Your task to perform on an android device: Show me productivity apps on the Play Store Image 0: 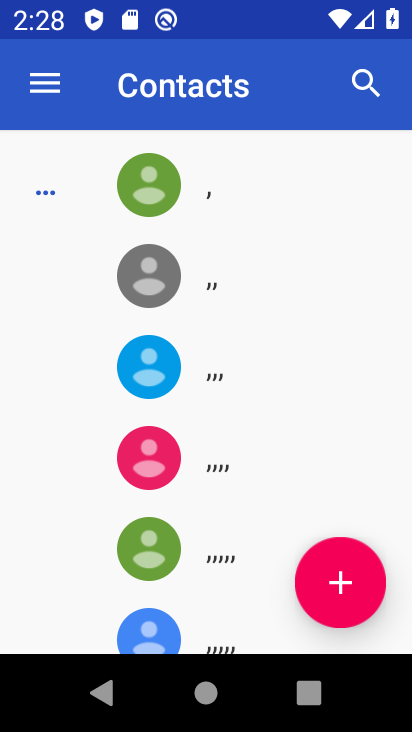
Step 0: press home button
Your task to perform on an android device: Show me productivity apps on the Play Store Image 1: 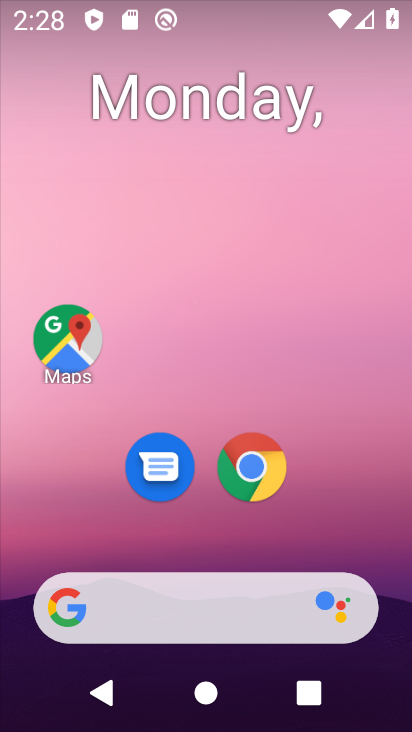
Step 1: drag from (376, 559) to (311, 226)
Your task to perform on an android device: Show me productivity apps on the Play Store Image 2: 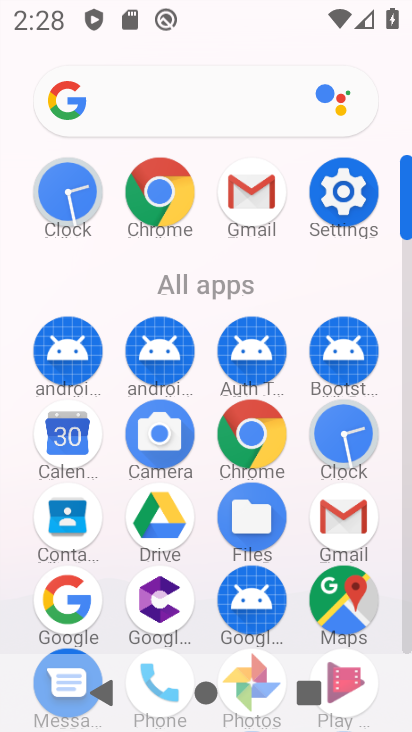
Step 2: click (407, 639)
Your task to perform on an android device: Show me productivity apps on the Play Store Image 3: 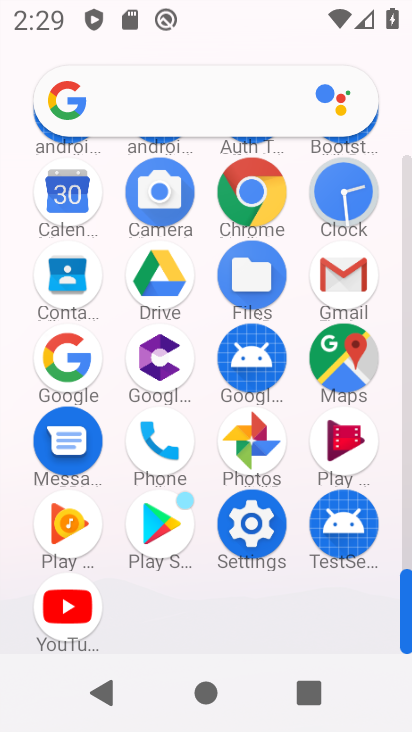
Step 3: click (169, 534)
Your task to perform on an android device: Show me productivity apps on the Play Store Image 4: 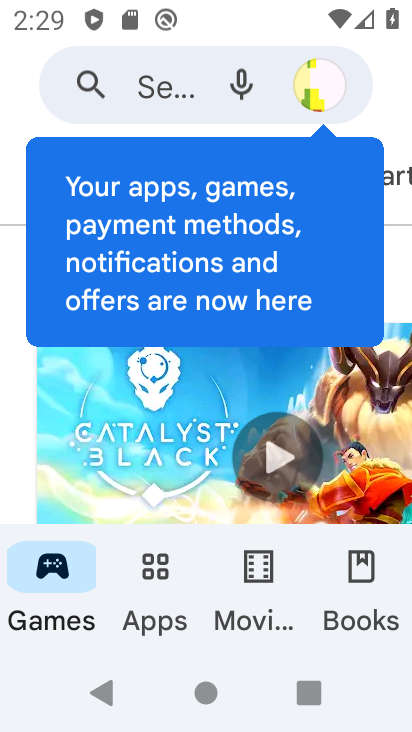
Step 4: click (146, 611)
Your task to perform on an android device: Show me productivity apps on the Play Store Image 5: 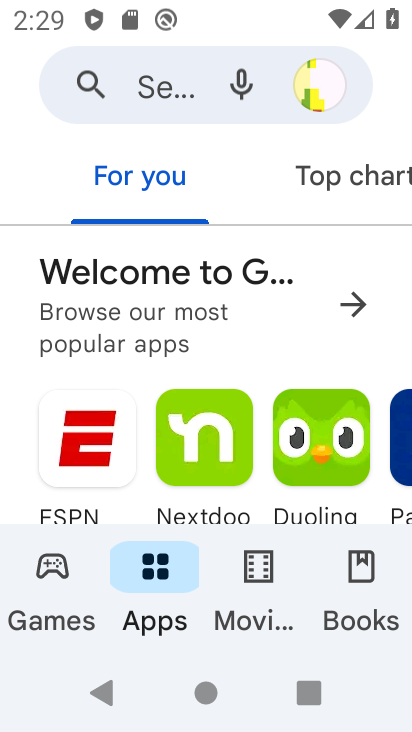
Step 5: drag from (367, 190) to (84, 176)
Your task to perform on an android device: Show me productivity apps on the Play Store Image 6: 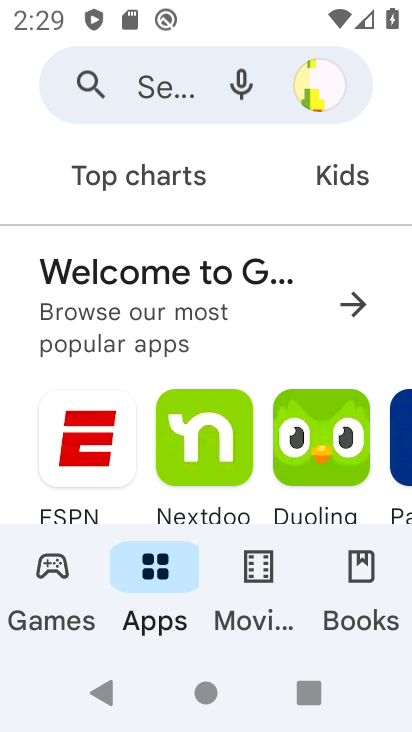
Step 6: drag from (332, 176) to (64, 176)
Your task to perform on an android device: Show me productivity apps on the Play Store Image 7: 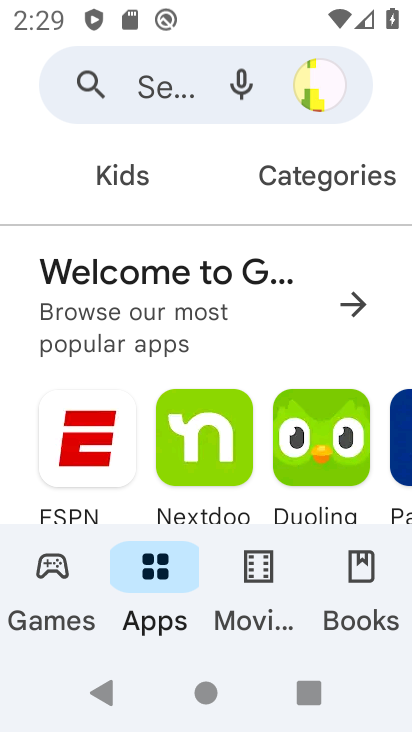
Step 7: click (355, 195)
Your task to perform on an android device: Show me productivity apps on the Play Store Image 8: 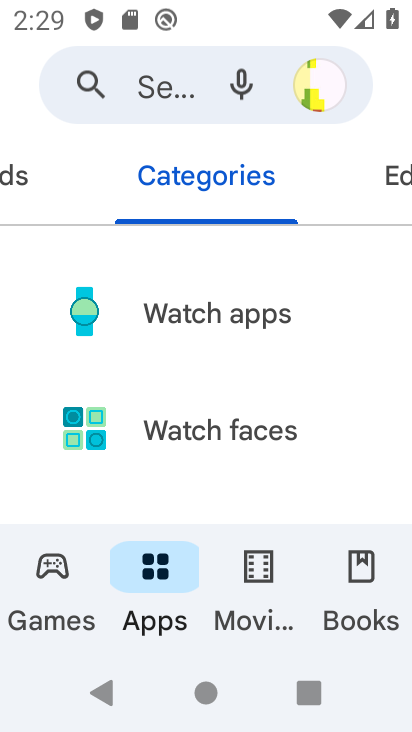
Step 8: drag from (226, 501) to (205, 265)
Your task to perform on an android device: Show me productivity apps on the Play Store Image 9: 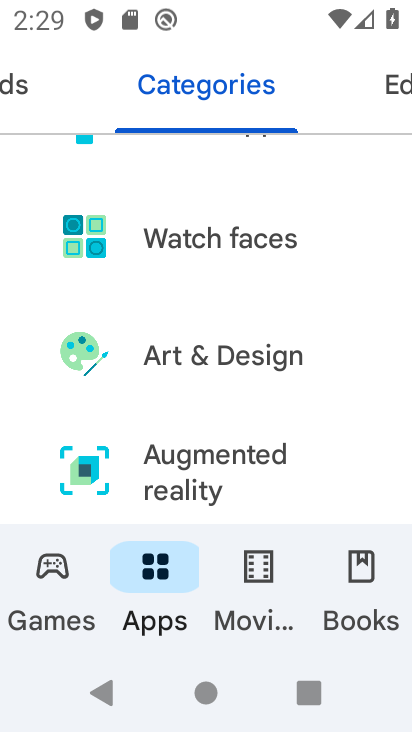
Step 9: drag from (244, 483) to (216, 174)
Your task to perform on an android device: Show me productivity apps on the Play Store Image 10: 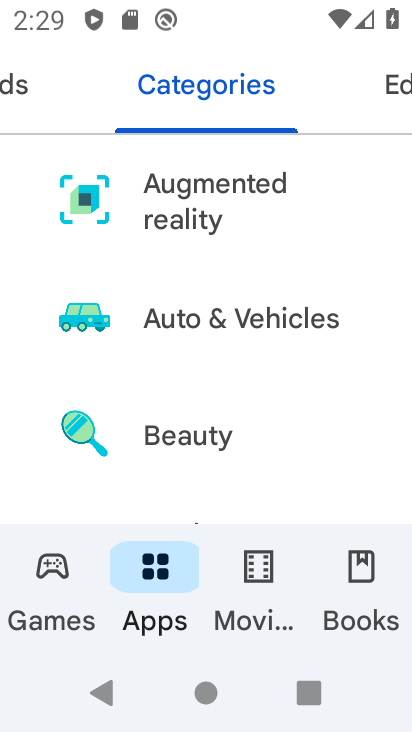
Step 10: drag from (266, 462) to (206, 68)
Your task to perform on an android device: Show me productivity apps on the Play Store Image 11: 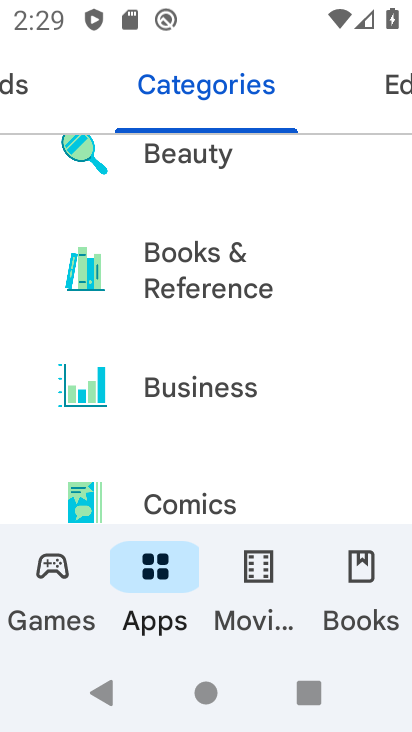
Step 11: drag from (226, 432) to (199, 167)
Your task to perform on an android device: Show me productivity apps on the Play Store Image 12: 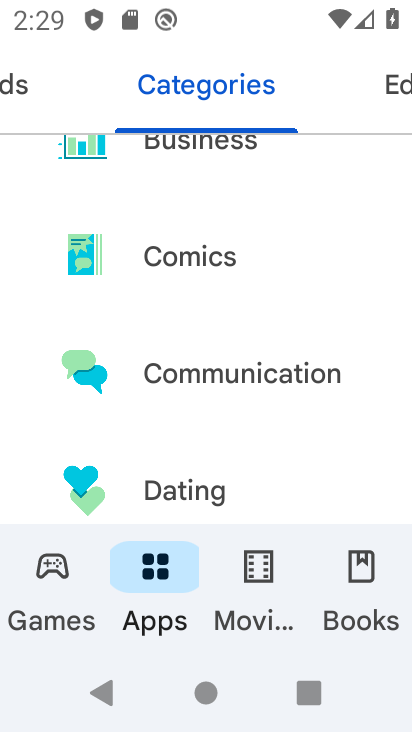
Step 12: drag from (298, 469) to (273, 157)
Your task to perform on an android device: Show me productivity apps on the Play Store Image 13: 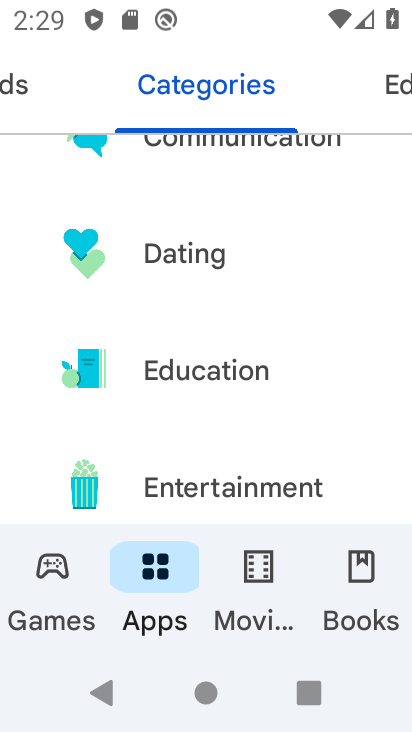
Step 13: drag from (281, 426) to (245, 93)
Your task to perform on an android device: Show me productivity apps on the Play Store Image 14: 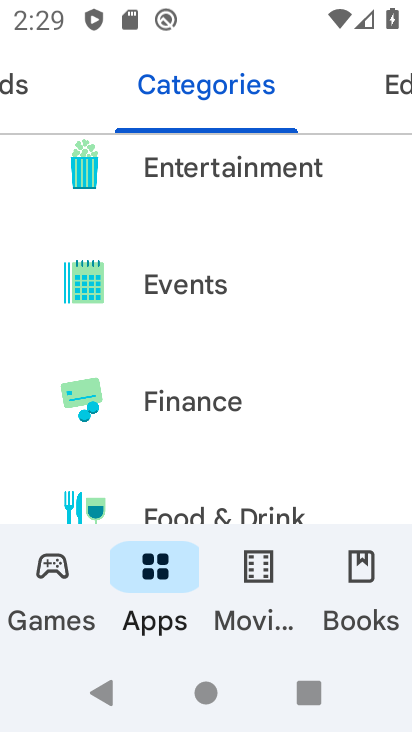
Step 14: drag from (242, 489) to (214, 42)
Your task to perform on an android device: Show me productivity apps on the Play Store Image 15: 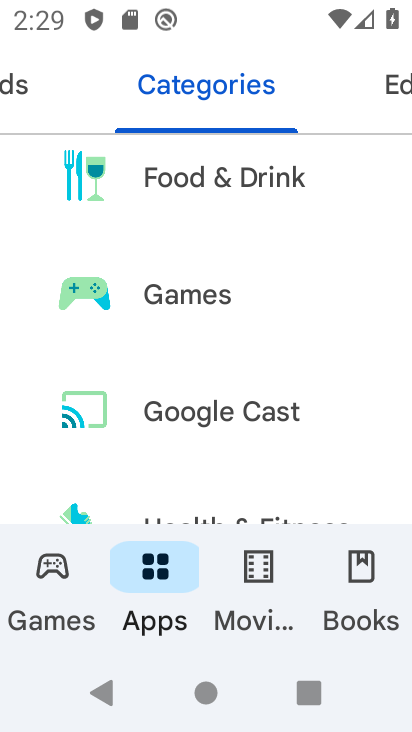
Step 15: drag from (259, 495) to (213, 84)
Your task to perform on an android device: Show me productivity apps on the Play Store Image 16: 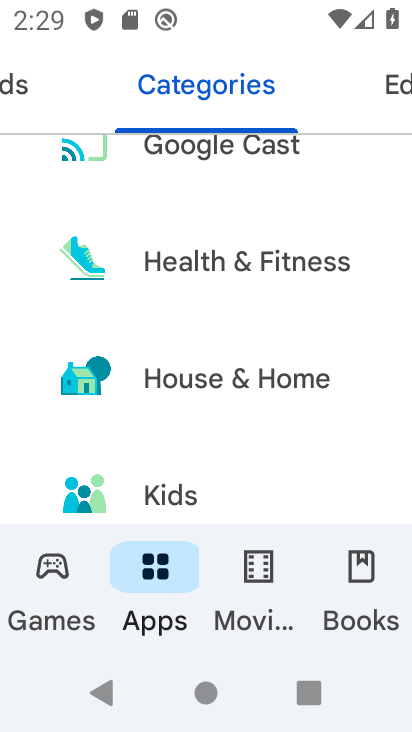
Step 16: drag from (252, 458) to (181, 54)
Your task to perform on an android device: Show me productivity apps on the Play Store Image 17: 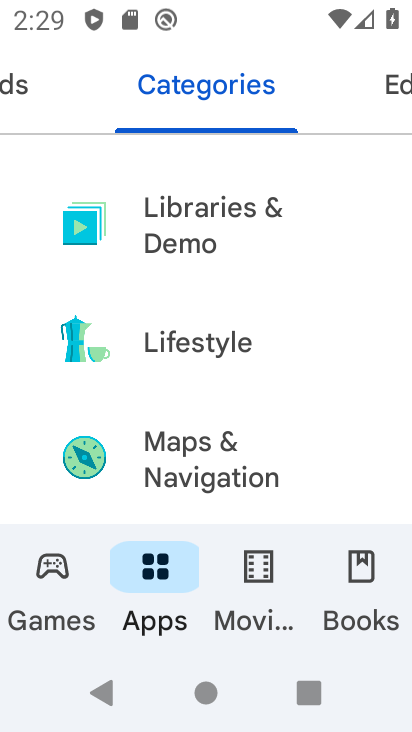
Step 17: drag from (195, 498) to (171, 137)
Your task to perform on an android device: Show me productivity apps on the Play Store Image 18: 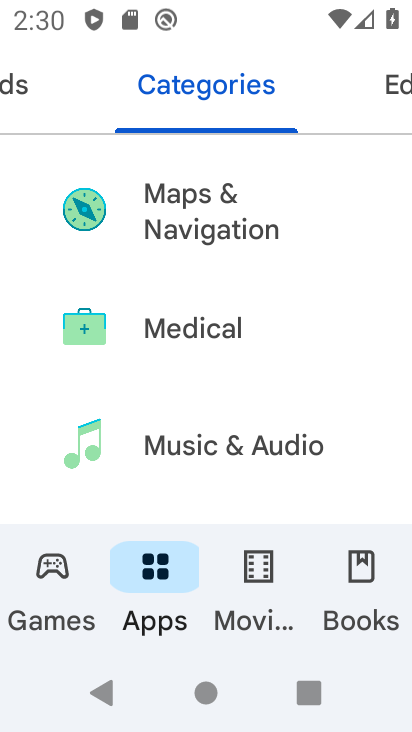
Step 18: drag from (211, 501) to (157, 167)
Your task to perform on an android device: Show me productivity apps on the Play Store Image 19: 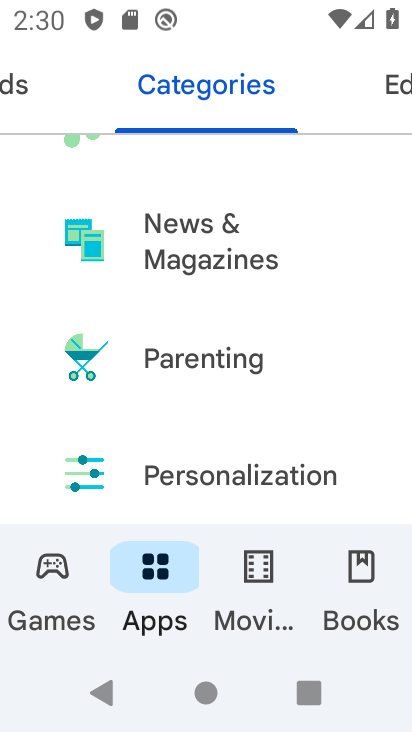
Step 19: drag from (242, 446) to (199, 93)
Your task to perform on an android device: Show me productivity apps on the Play Store Image 20: 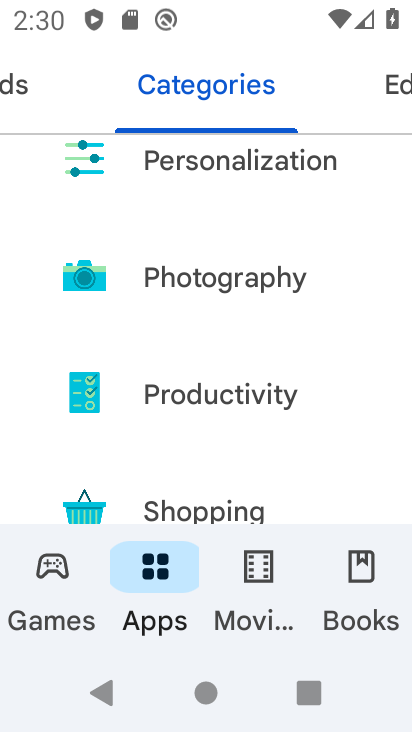
Step 20: click (245, 382)
Your task to perform on an android device: Show me productivity apps on the Play Store Image 21: 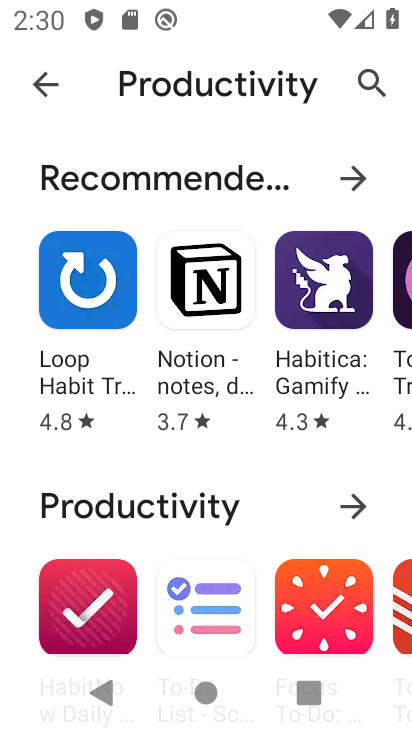
Step 21: task complete